Your task to perform on an android device: manage bookmarks in the chrome app Image 0: 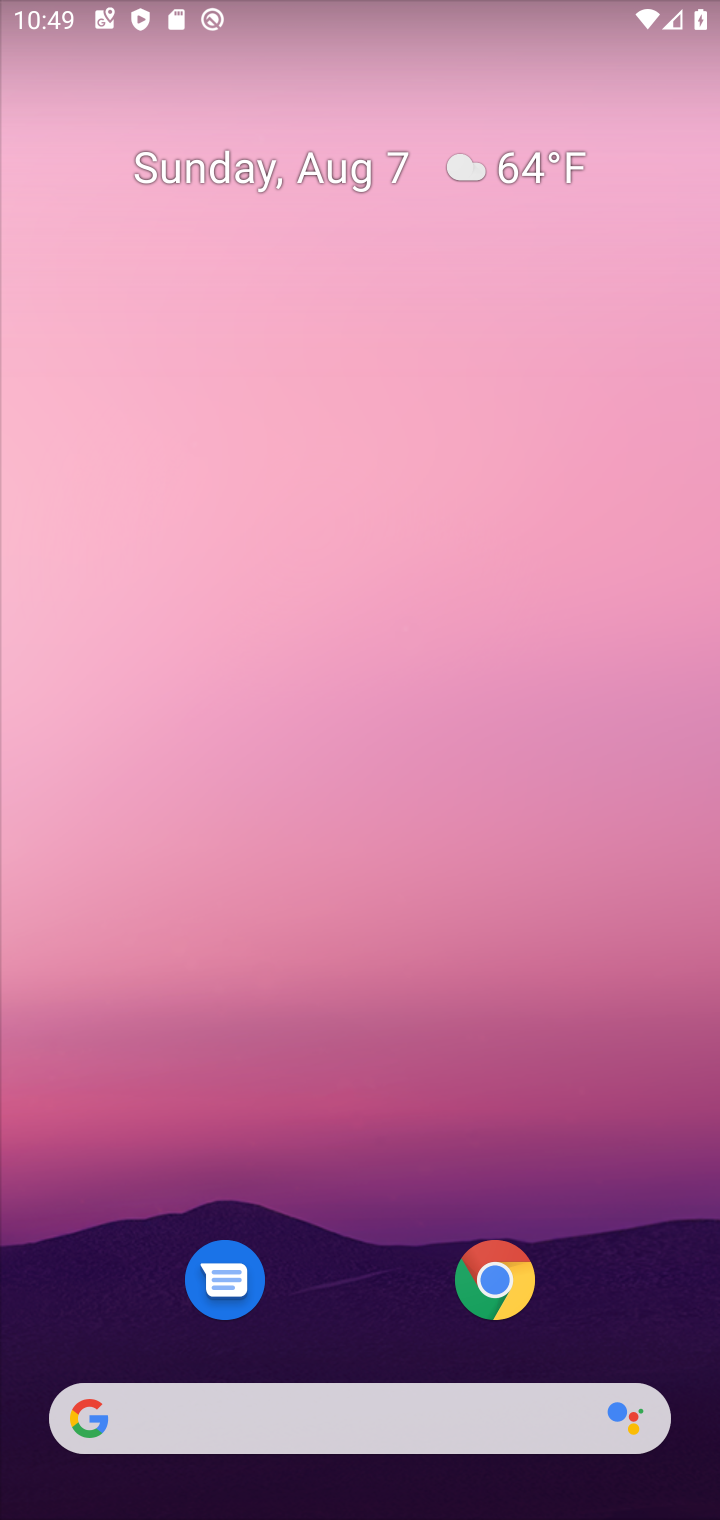
Step 0: click (508, 1273)
Your task to perform on an android device: manage bookmarks in the chrome app Image 1: 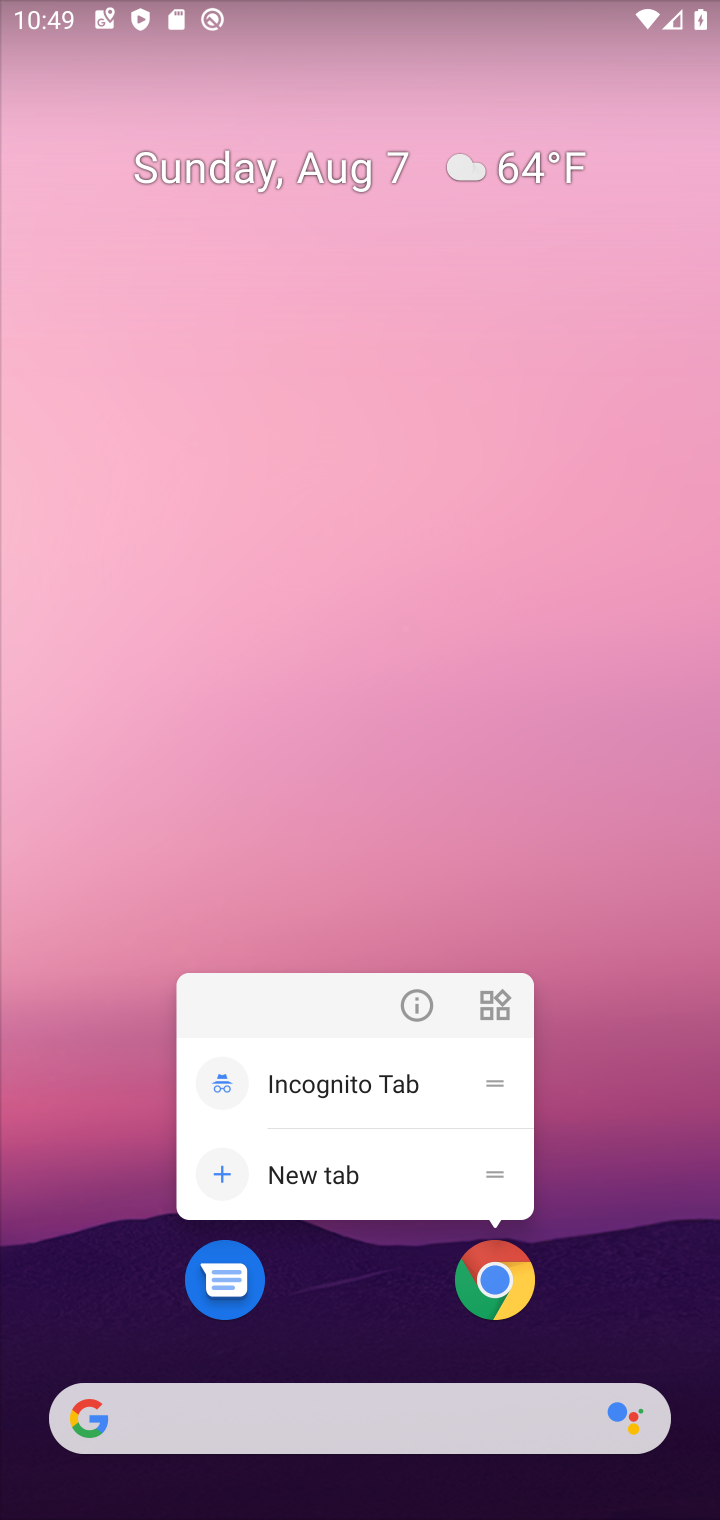
Step 1: click (497, 1284)
Your task to perform on an android device: manage bookmarks in the chrome app Image 2: 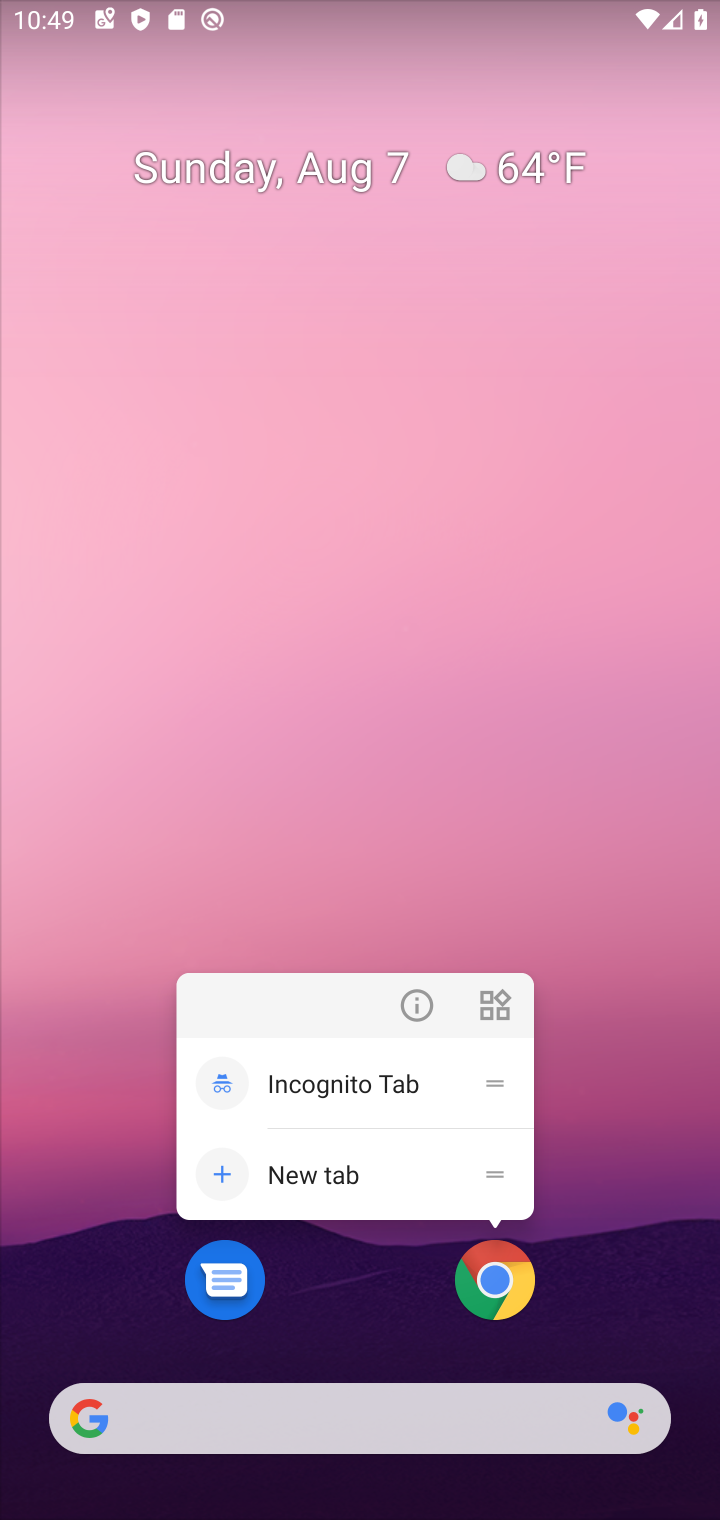
Step 2: click (484, 1281)
Your task to perform on an android device: manage bookmarks in the chrome app Image 3: 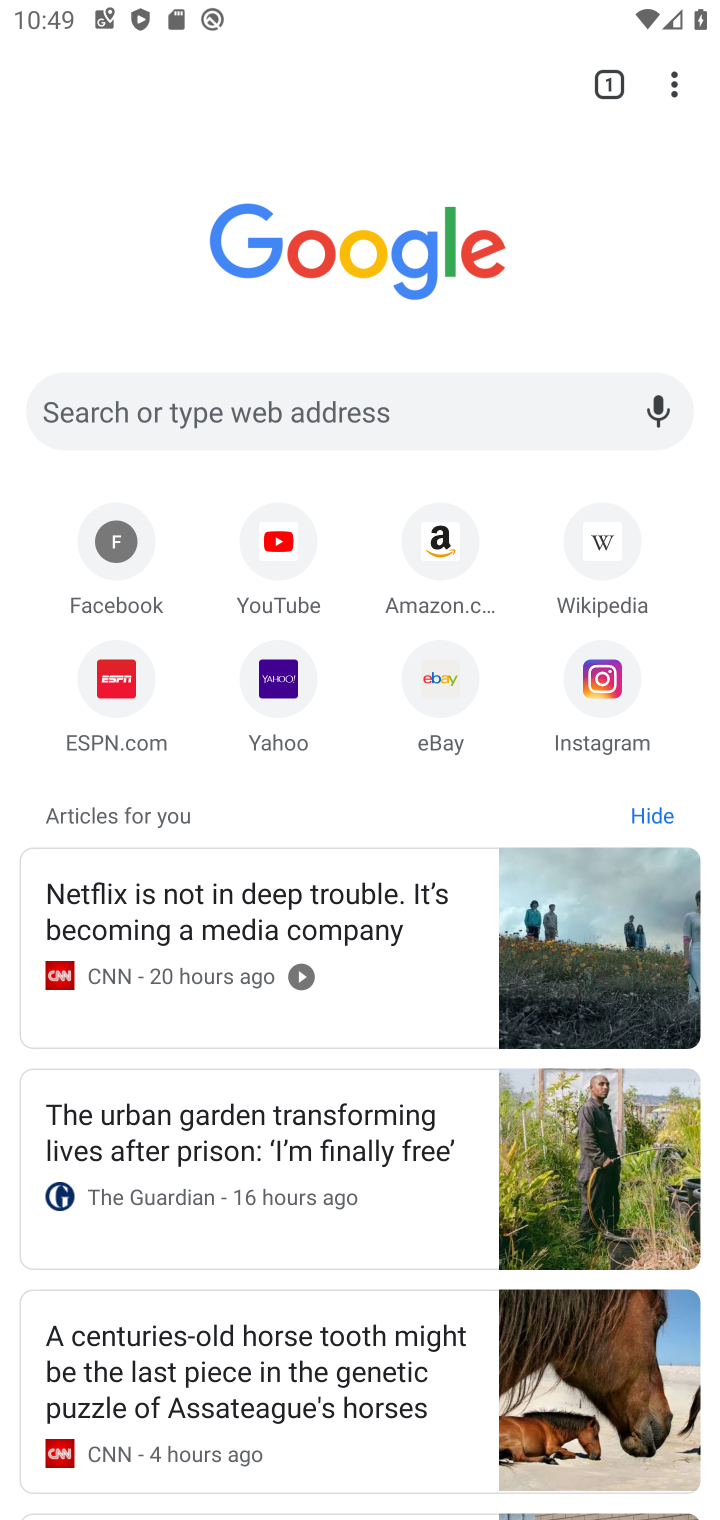
Step 3: drag from (669, 84) to (425, 320)
Your task to perform on an android device: manage bookmarks in the chrome app Image 4: 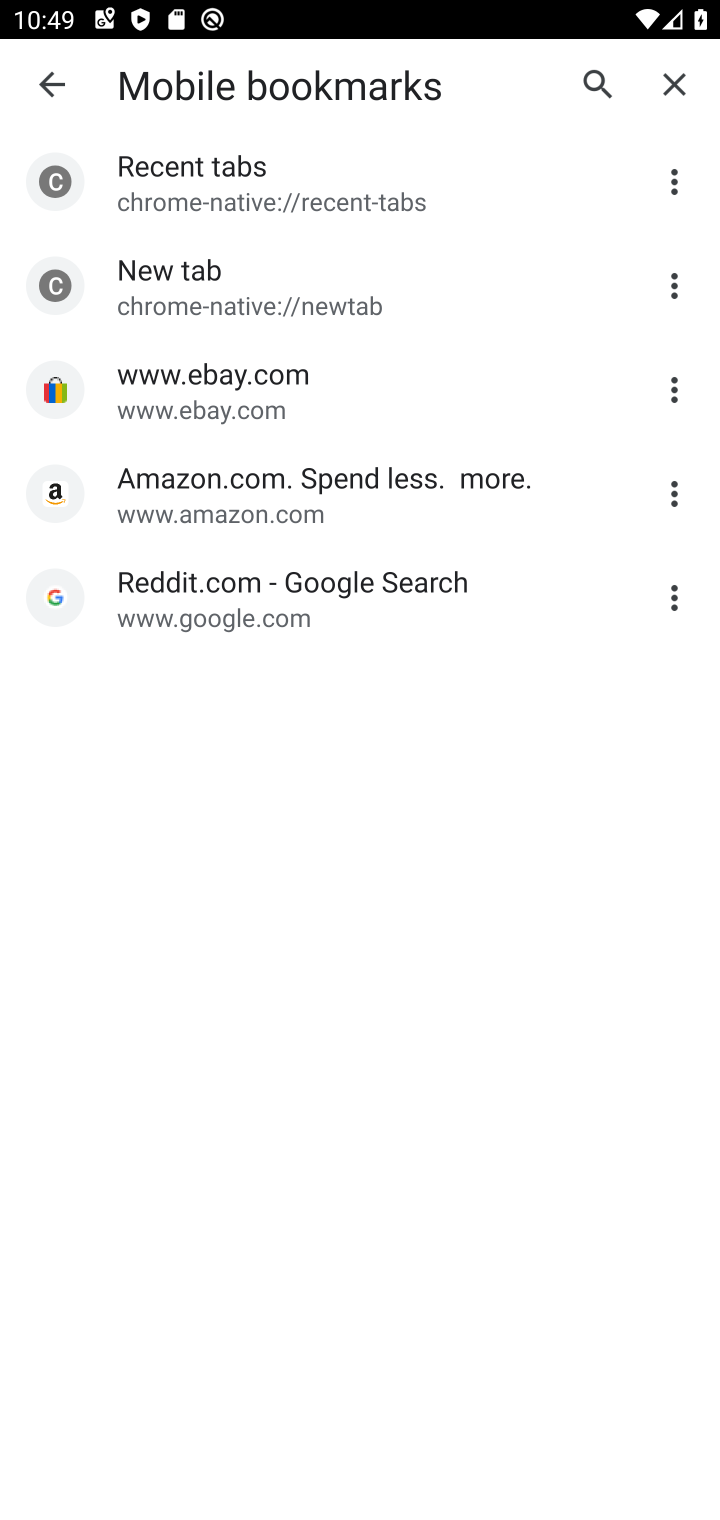
Step 4: click (679, 389)
Your task to perform on an android device: manage bookmarks in the chrome app Image 5: 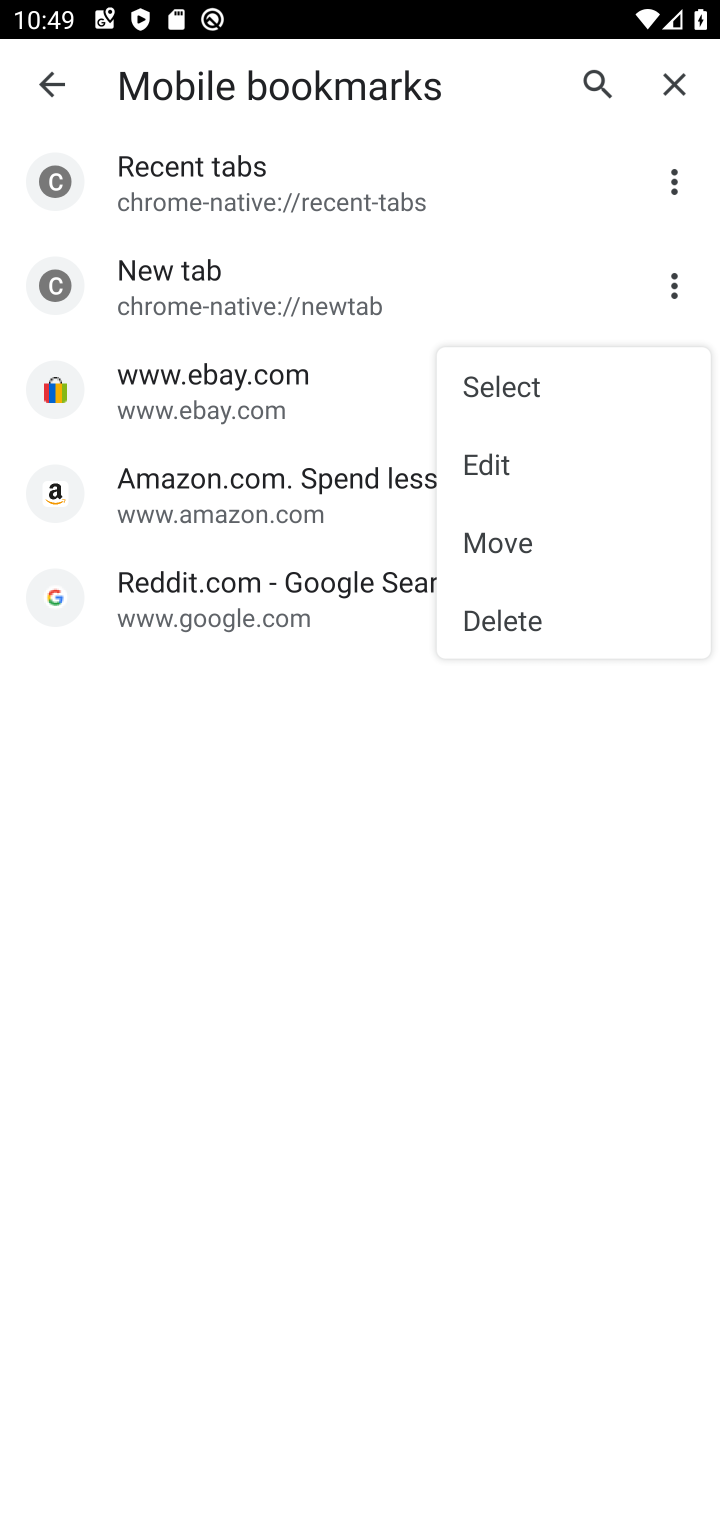
Step 5: click (538, 636)
Your task to perform on an android device: manage bookmarks in the chrome app Image 6: 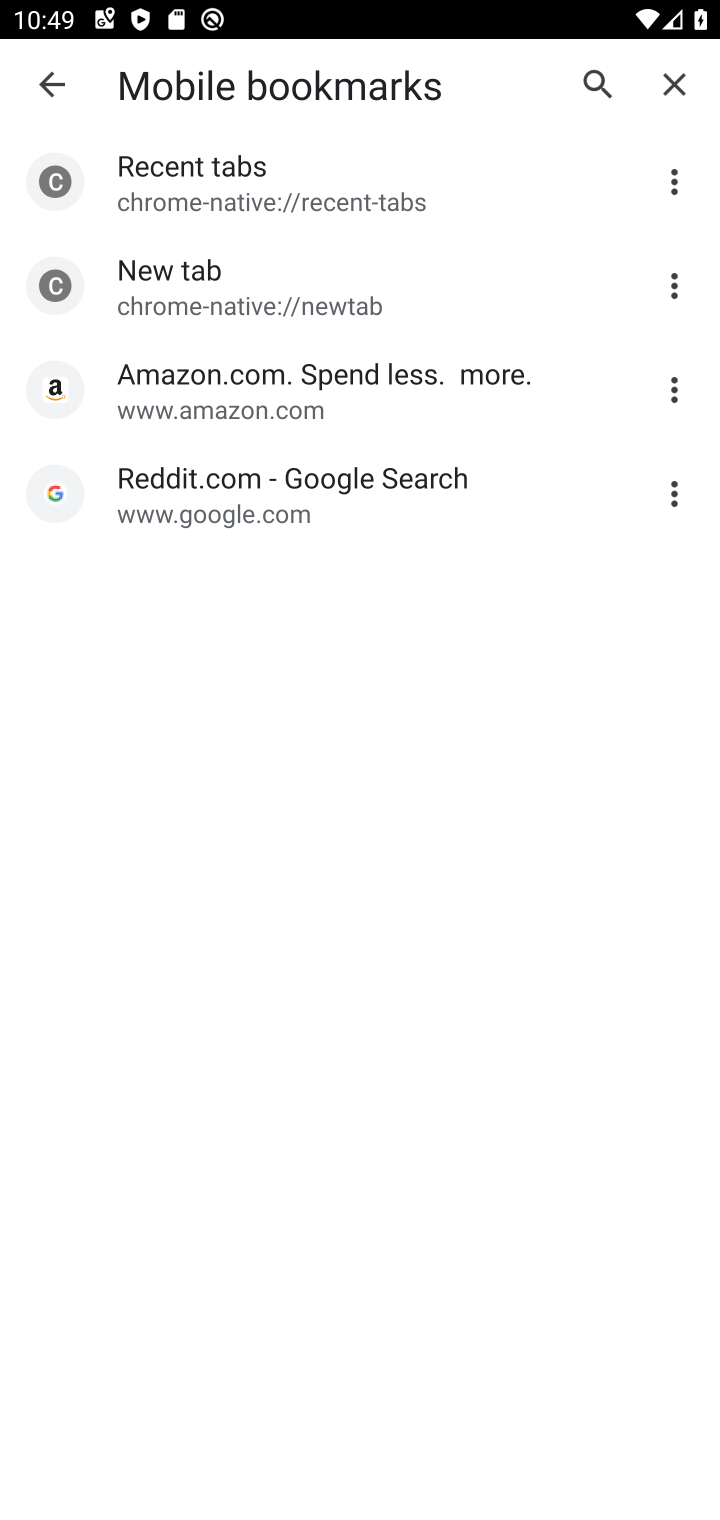
Step 6: task complete